Your task to perform on an android device: Go to Google Image 0: 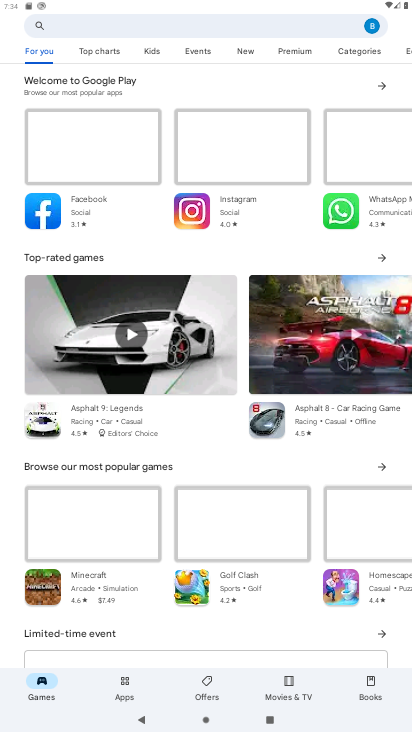
Step 0: press home button
Your task to perform on an android device: Go to Google Image 1: 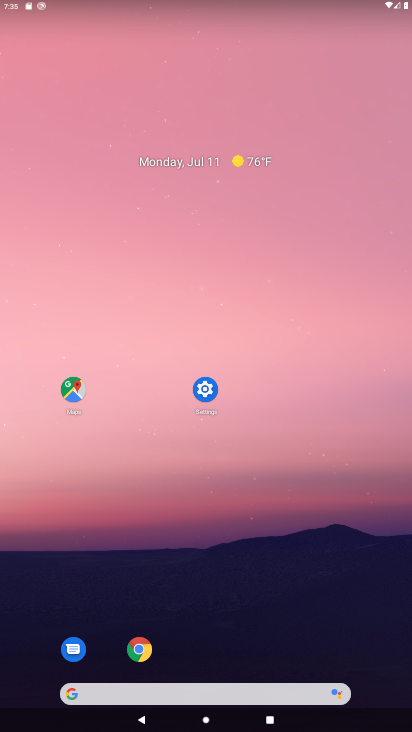
Step 1: drag from (405, 717) to (330, 59)
Your task to perform on an android device: Go to Google Image 2: 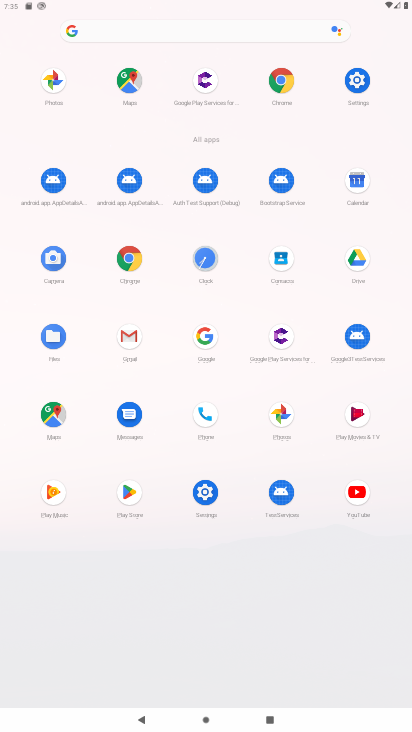
Step 2: click (201, 332)
Your task to perform on an android device: Go to Google Image 3: 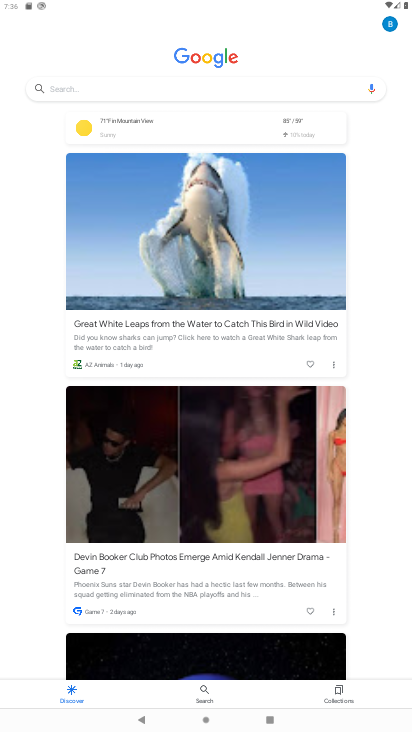
Step 3: task complete